Your task to perform on an android device: Open Google Chrome and click the shortcut for Amazon.com Image 0: 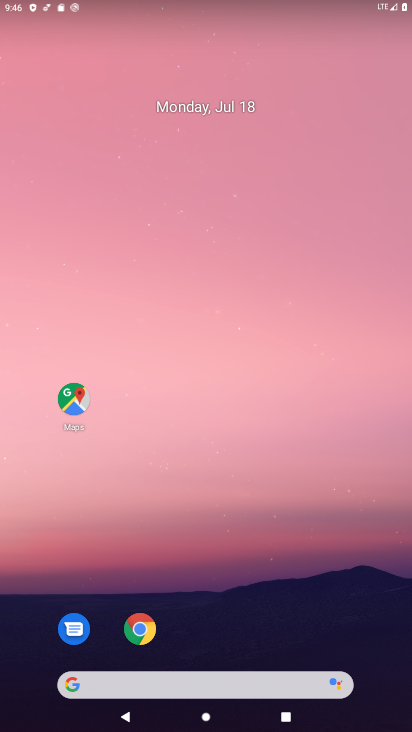
Step 0: click (147, 627)
Your task to perform on an android device: Open Google Chrome and click the shortcut for Amazon.com Image 1: 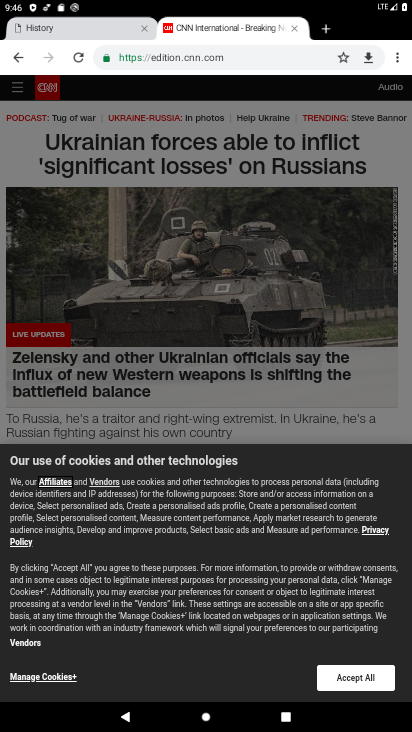
Step 1: click (317, 28)
Your task to perform on an android device: Open Google Chrome and click the shortcut for Amazon.com Image 2: 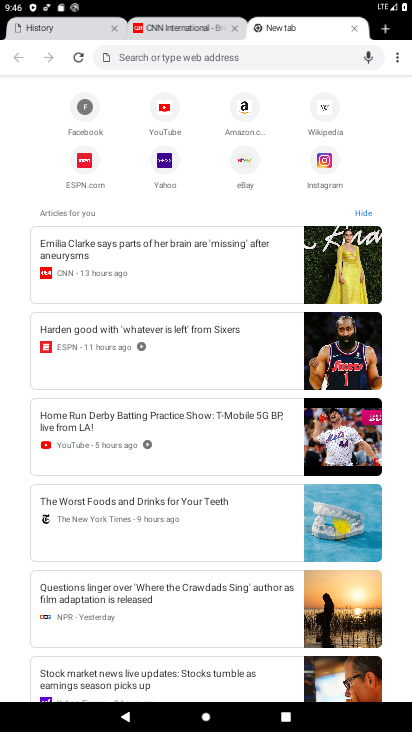
Step 2: click (235, 115)
Your task to perform on an android device: Open Google Chrome and click the shortcut for Amazon.com Image 3: 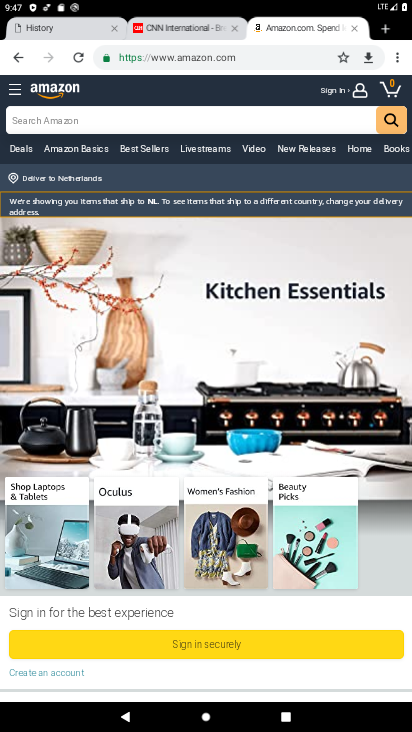
Step 3: task complete